Your task to perform on an android device: Open Maps and search for coffee Image 0: 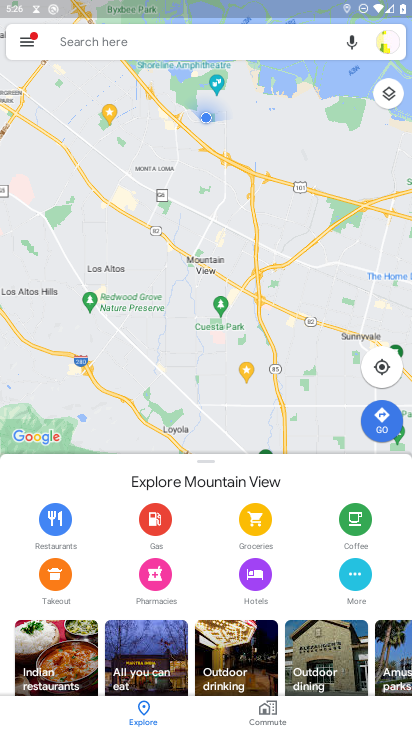
Step 0: click (123, 44)
Your task to perform on an android device: Open Maps and search for coffee Image 1: 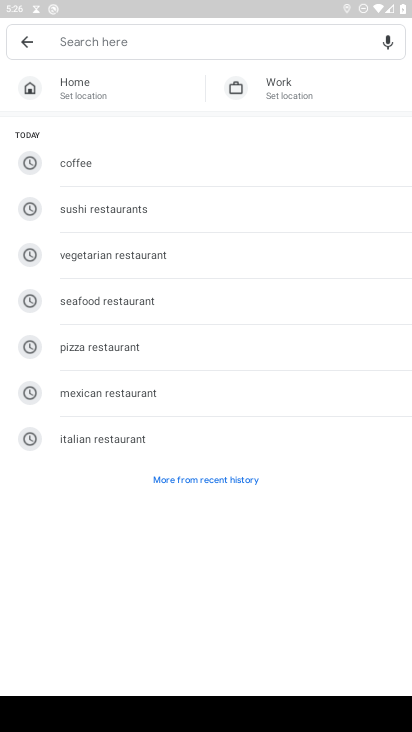
Step 1: click (83, 156)
Your task to perform on an android device: Open Maps and search for coffee Image 2: 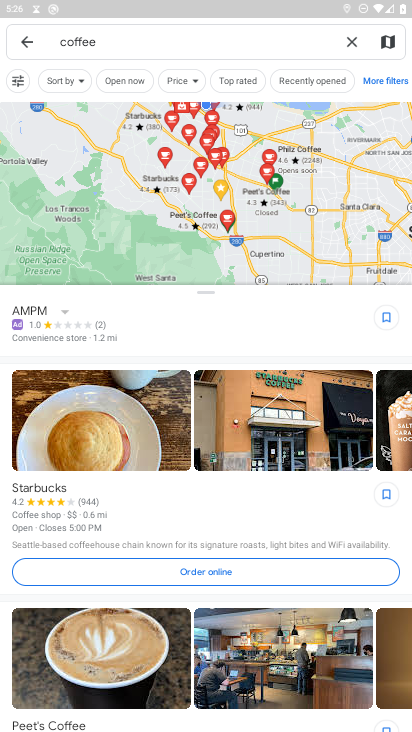
Step 2: task complete